Your task to perform on an android device: change notifications settings Image 0: 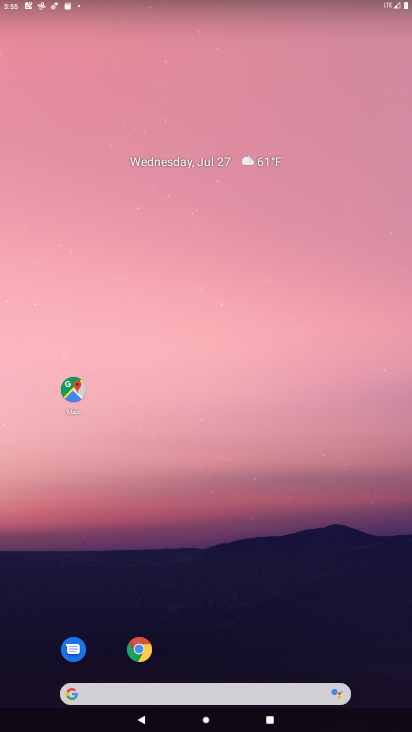
Step 0: drag from (193, 647) to (298, 99)
Your task to perform on an android device: change notifications settings Image 1: 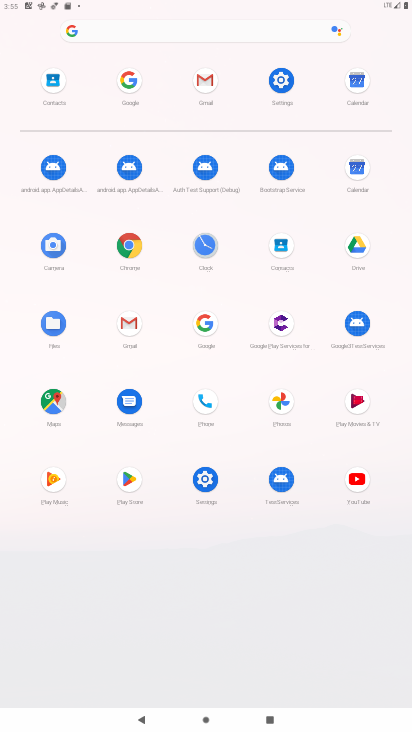
Step 1: click (278, 90)
Your task to perform on an android device: change notifications settings Image 2: 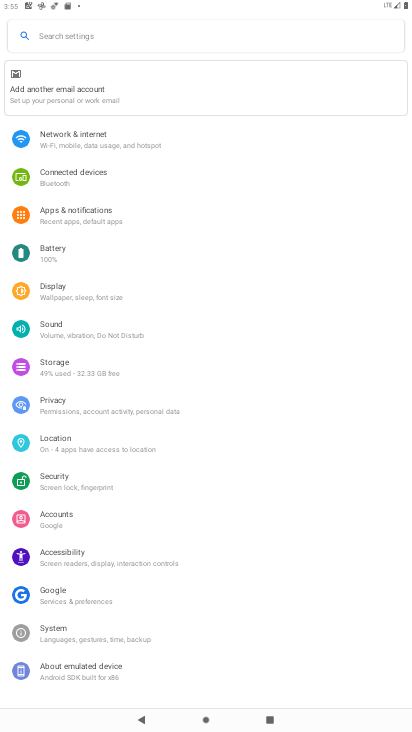
Step 2: click (91, 217)
Your task to perform on an android device: change notifications settings Image 3: 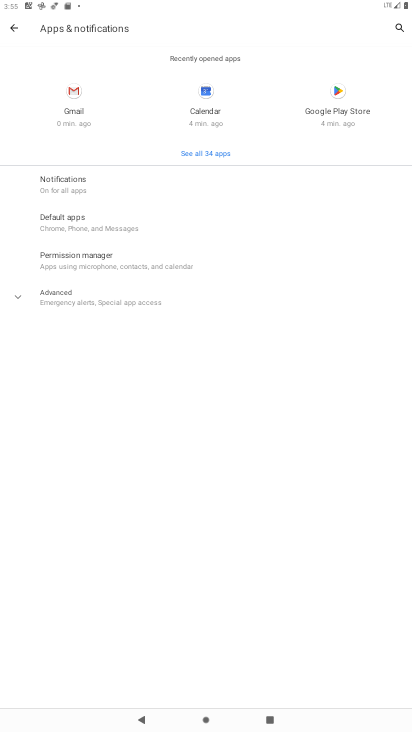
Step 3: click (60, 184)
Your task to perform on an android device: change notifications settings Image 4: 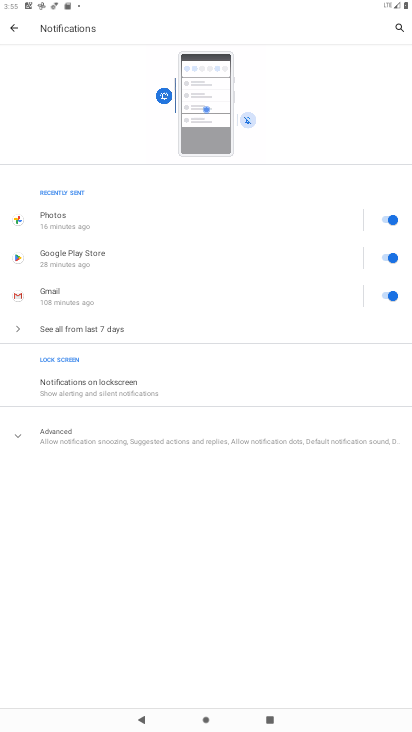
Step 4: click (120, 390)
Your task to perform on an android device: change notifications settings Image 5: 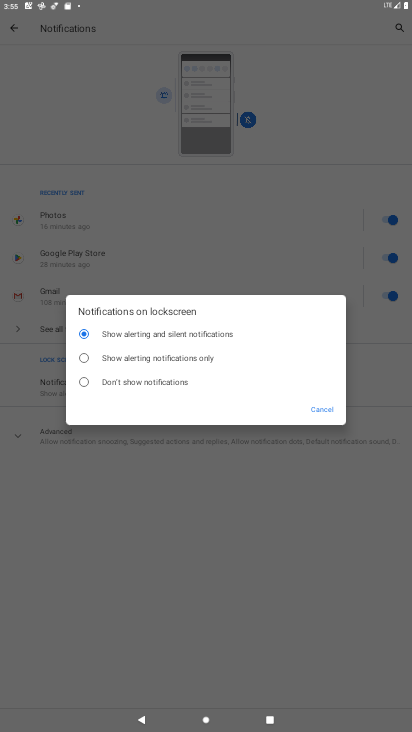
Step 5: click (83, 384)
Your task to perform on an android device: change notifications settings Image 6: 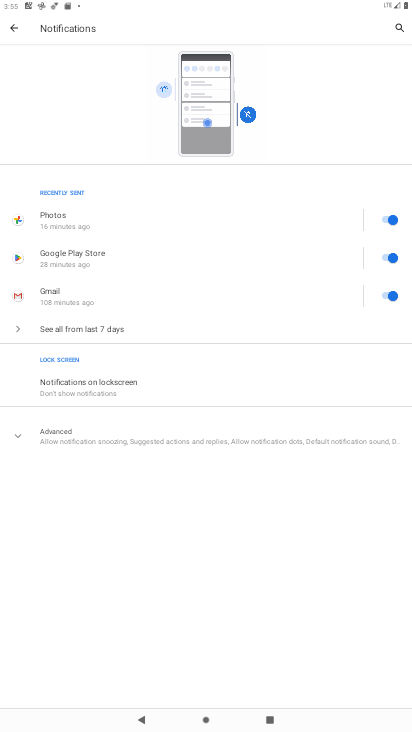
Step 6: task complete